Your task to perform on an android device: Check the news Image 0: 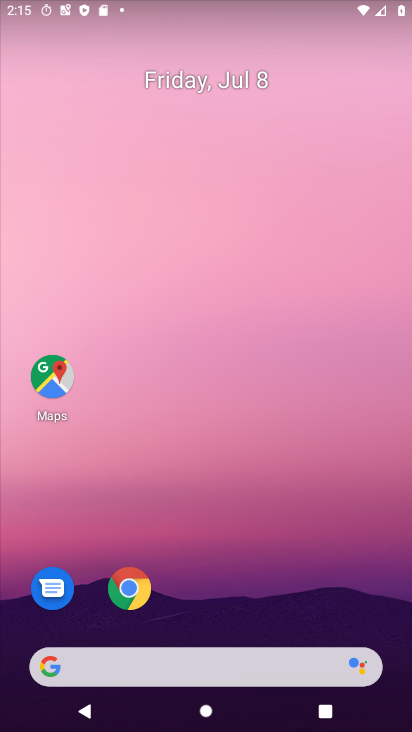
Step 0: click (268, 128)
Your task to perform on an android device: Check the news Image 1: 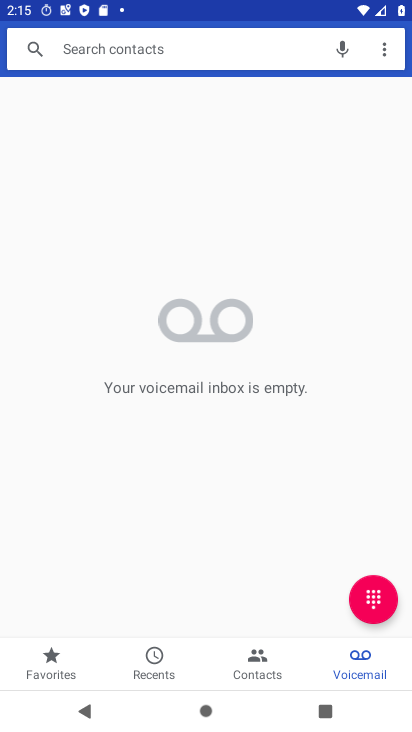
Step 1: press home button
Your task to perform on an android device: Check the news Image 2: 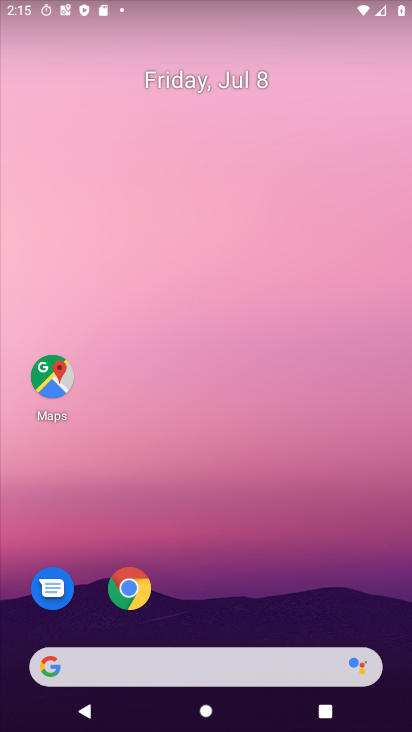
Step 2: click (55, 674)
Your task to perform on an android device: Check the news Image 3: 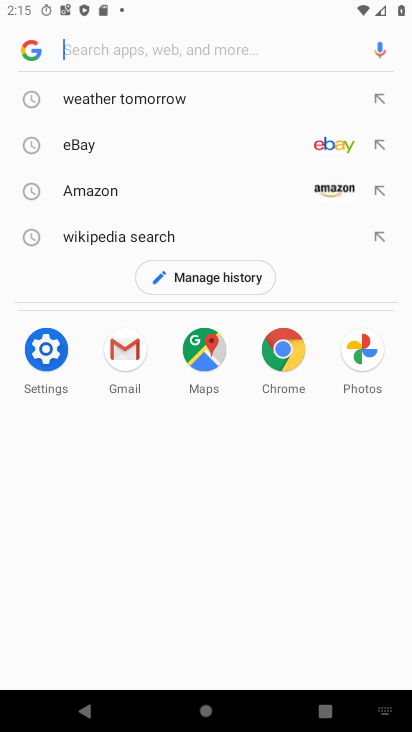
Step 3: type "news"
Your task to perform on an android device: Check the news Image 4: 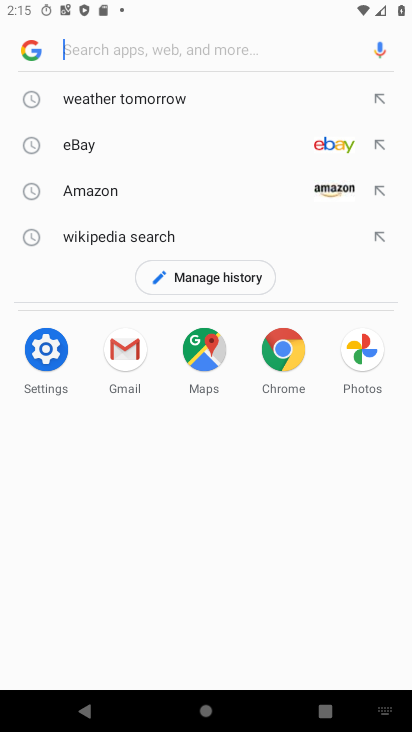
Step 4: click (261, 60)
Your task to perform on an android device: Check the news Image 5: 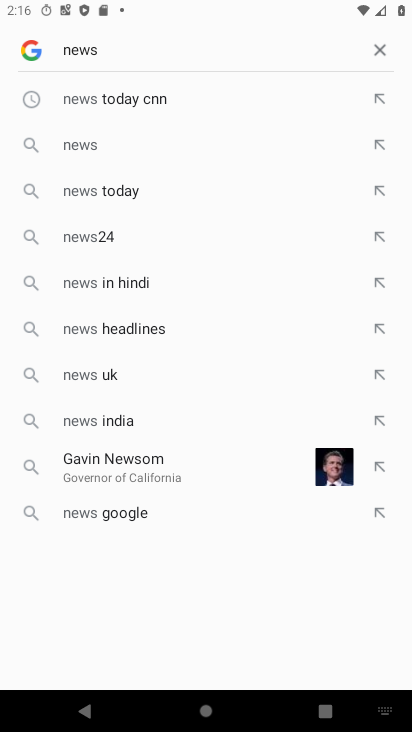
Step 5: click (89, 145)
Your task to perform on an android device: Check the news Image 6: 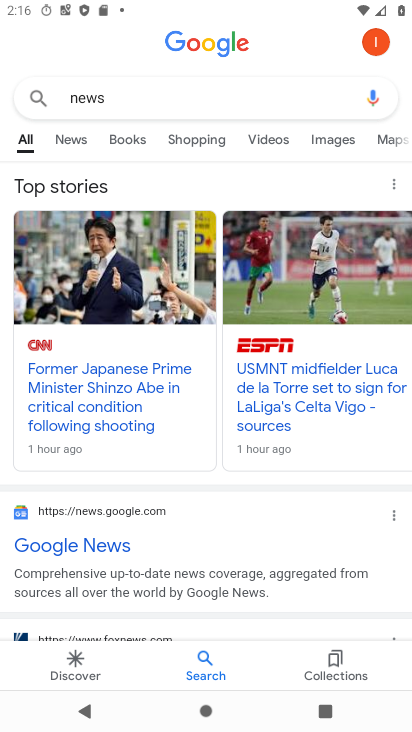
Step 6: task complete